Your task to perform on an android device: visit the assistant section in the google photos Image 0: 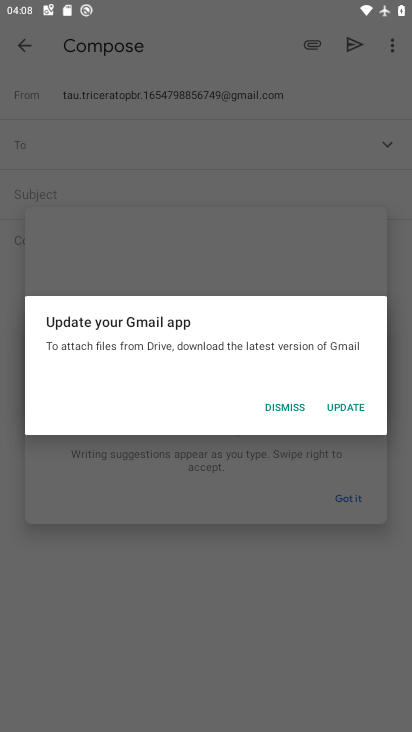
Step 0: click (247, 603)
Your task to perform on an android device: visit the assistant section in the google photos Image 1: 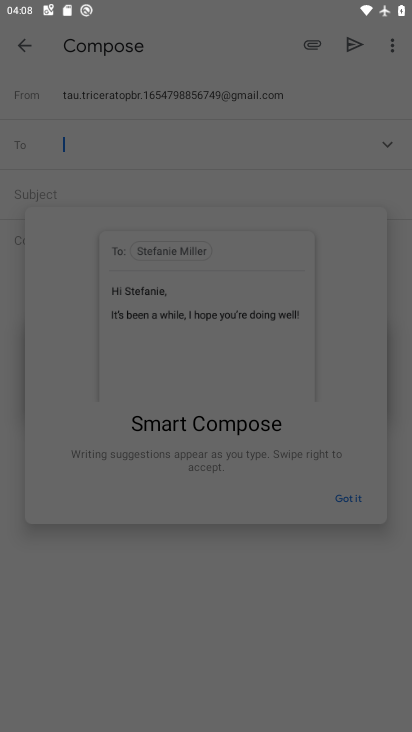
Step 1: press home button
Your task to perform on an android device: visit the assistant section in the google photos Image 2: 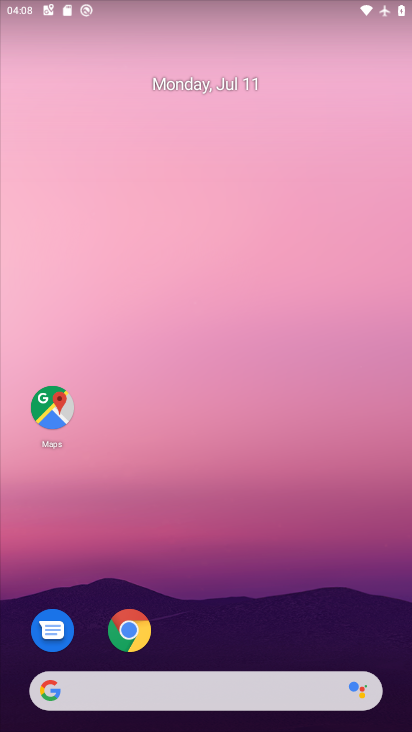
Step 2: click (264, 621)
Your task to perform on an android device: visit the assistant section in the google photos Image 3: 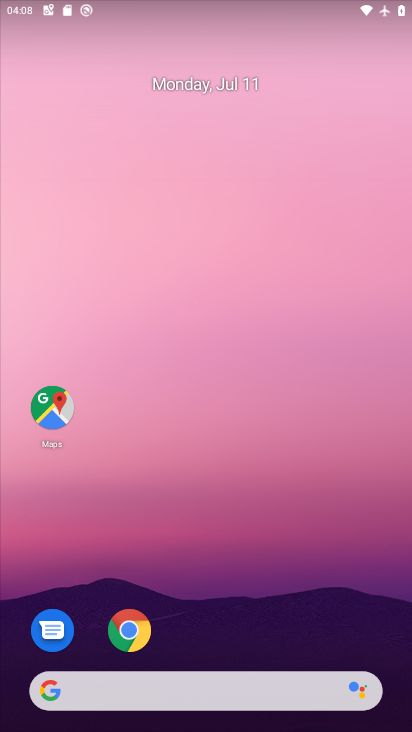
Step 3: click (264, 621)
Your task to perform on an android device: visit the assistant section in the google photos Image 4: 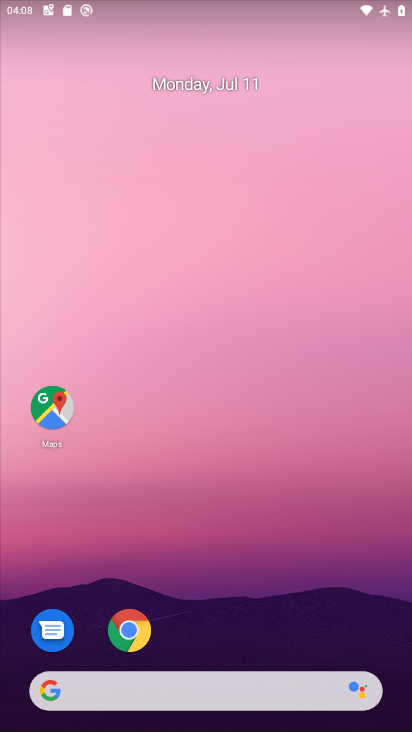
Step 4: drag from (240, 645) to (179, 65)
Your task to perform on an android device: visit the assistant section in the google photos Image 5: 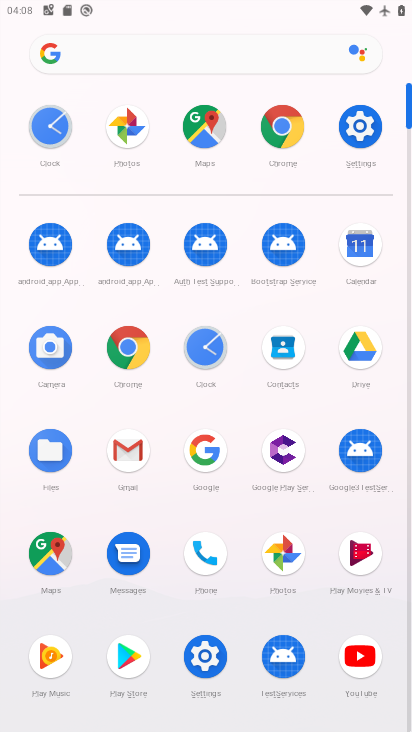
Step 5: click (268, 563)
Your task to perform on an android device: visit the assistant section in the google photos Image 6: 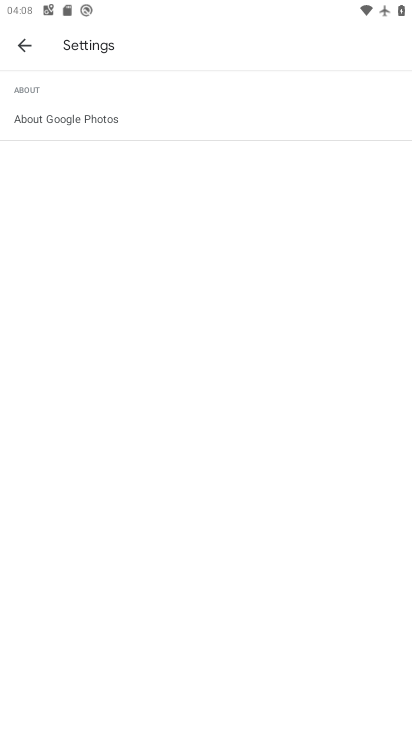
Step 6: click (24, 35)
Your task to perform on an android device: visit the assistant section in the google photos Image 7: 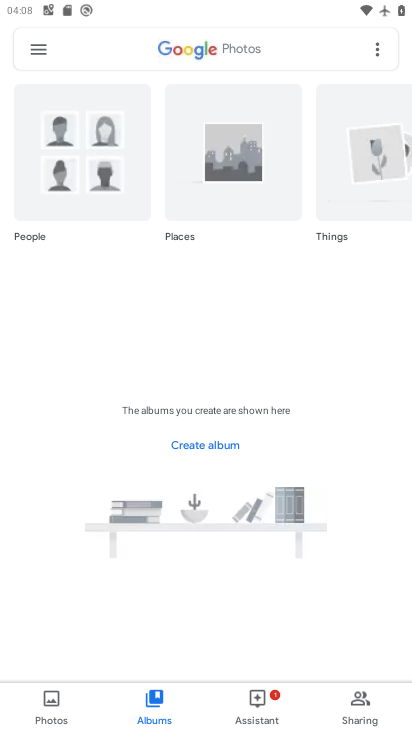
Step 7: click (279, 724)
Your task to perform on an android device: visit the assistant section in the google photos Image 8: 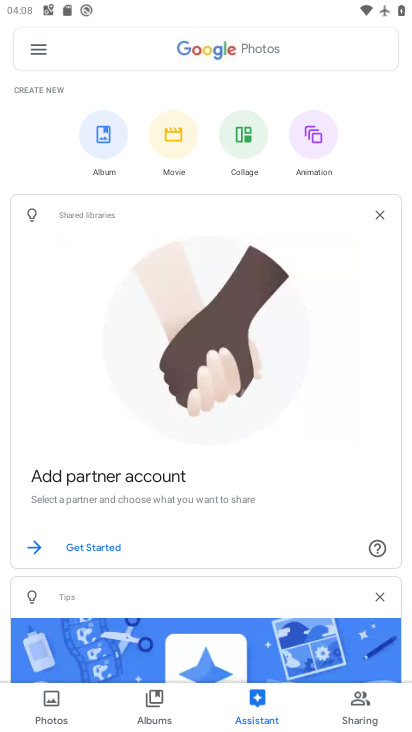
Step 8: task complete